Your task to perform on an android device: visit the assistant section in the google photos Image 0: 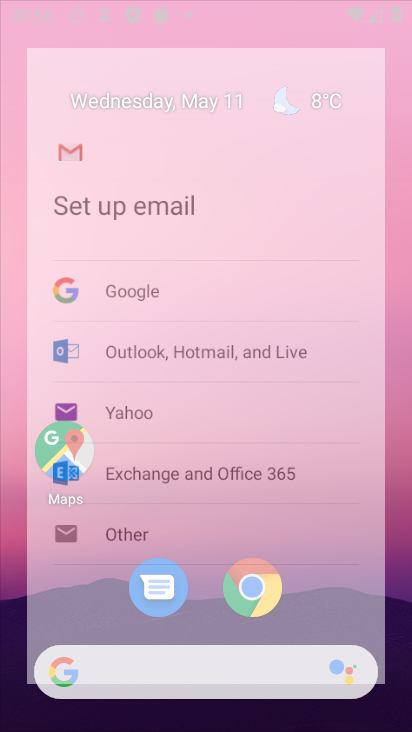
Step 0: drag from (354, 671) to (157, 116)
Your task to perform on an android device: visit the assistant section in the google photos Image 1: 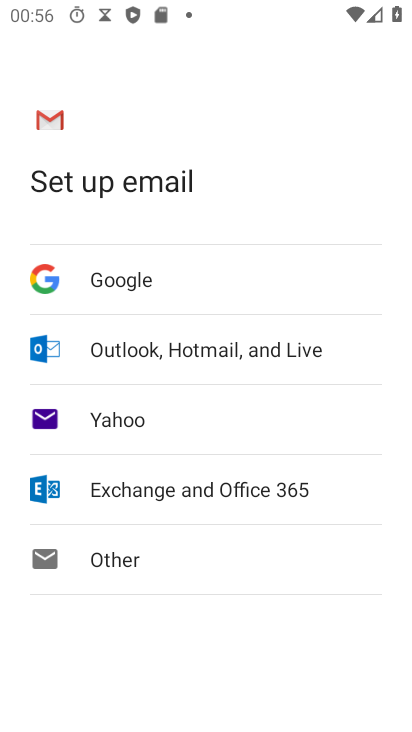
Step 1: press back button
Your task to perform on an android device: visit the assistant section in the google photos Image 2: 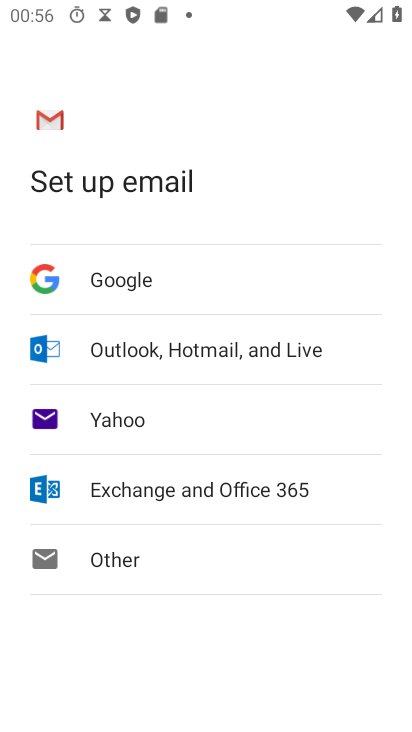
Step 2: press back button
Your task to perform on an android device: visit the assistant section in the google photos Image 3: 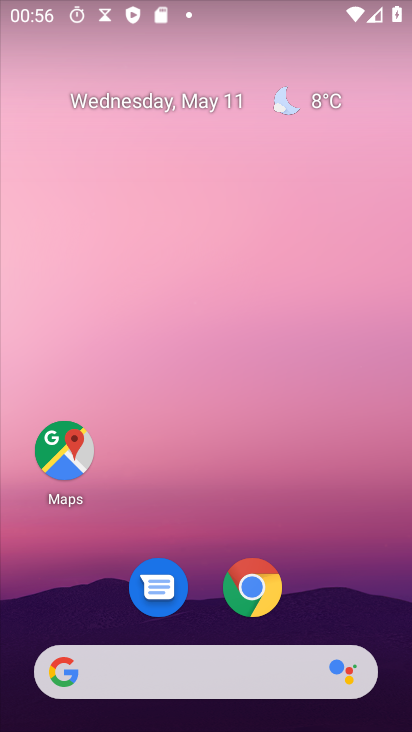
Step 3: drag from (375, 624) to (139, 19)
Your task to perform on an android device: visit the assistant section in the google photos Image 4: 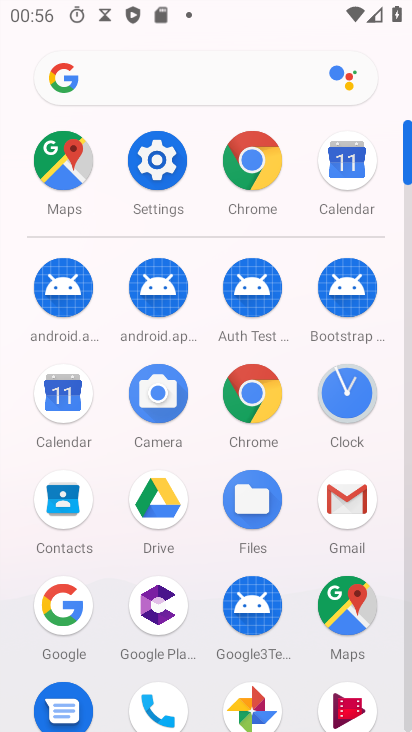
Step 4: drag from (331, 603) to (122, 31)
Your task to perform on an android device: visit the assistant section in the google photos Image 5: 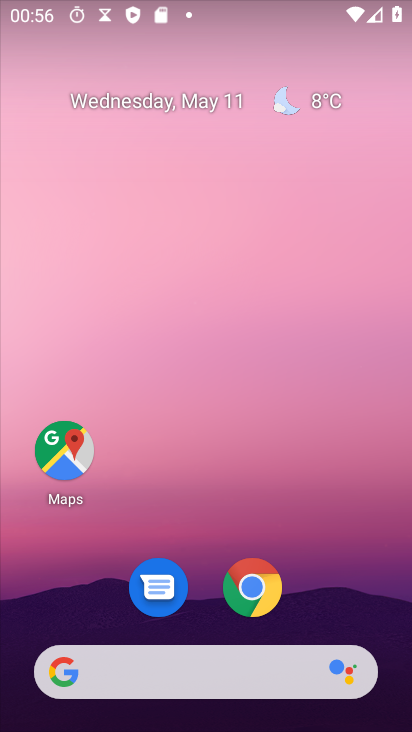
Step 5: drag from (399, 639) to (132, 2)
Your task to perform on an android device: visit the assistant section in the google photos Image 6: 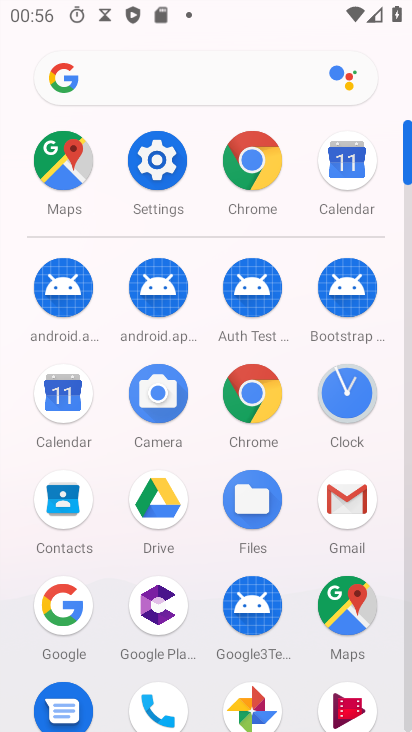
Step 6: click (261, 703)
Your task to perform on an android device: visit the assistant section in the google photos Image 7: 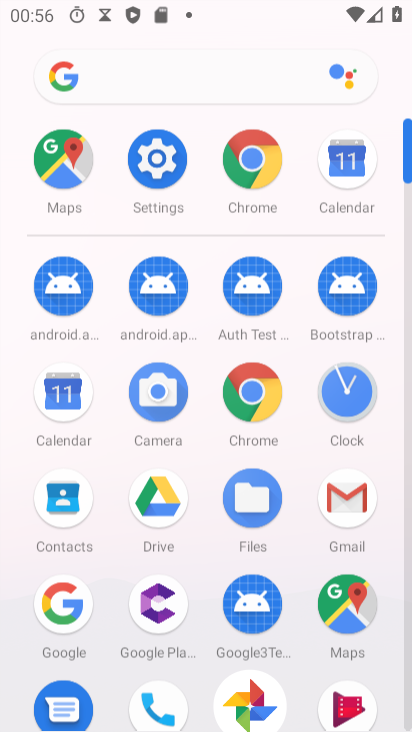
Step 7: click (259, 704)
Your task to perform on an android device: visit the assistant section in the google photos Image 8: 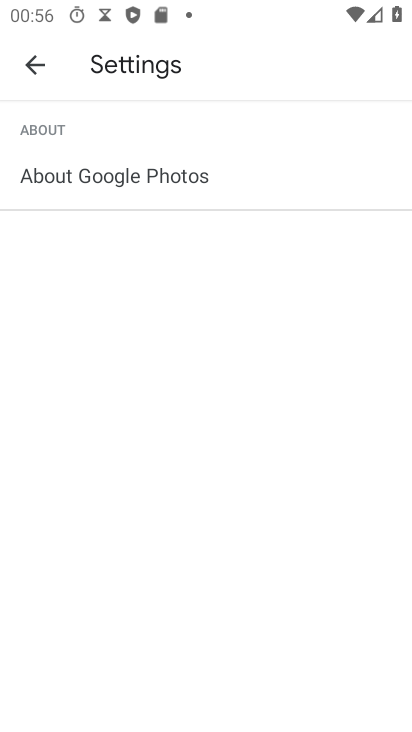
Step 8: click (35, 71)
Your task to perform on an android device: visit the assistant section in the google photos Image 9: 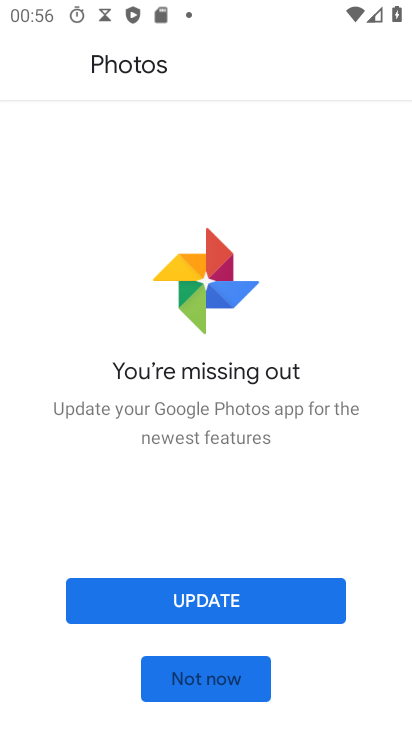
Step 9: click (253, 679)
Your task to perform on an android device: visit the assistant section in the google photos Image 10: 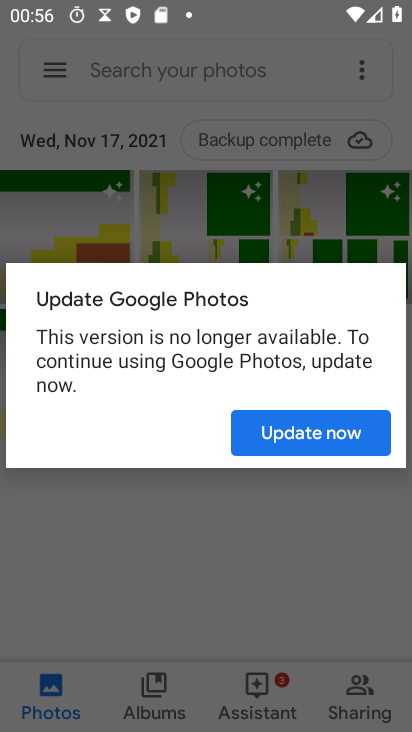
Step 10: click (225, 672)
Your task to perform on an android device: visit the assistant section in the google photos Image 11: 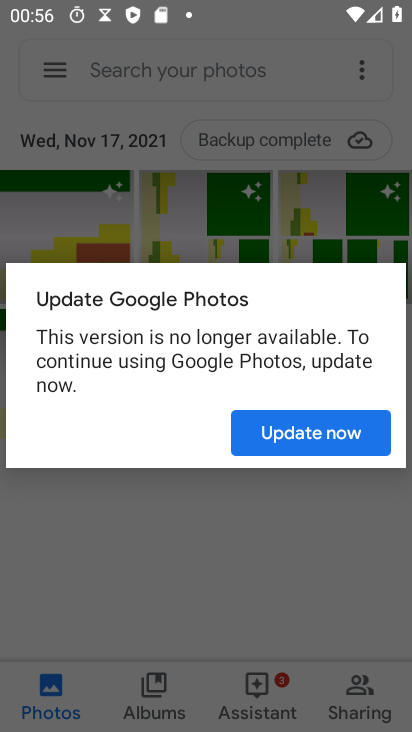
Step 11: click (325, 424)
Your task to perform on an android device: visit the assistant section in the google photos Image 12: 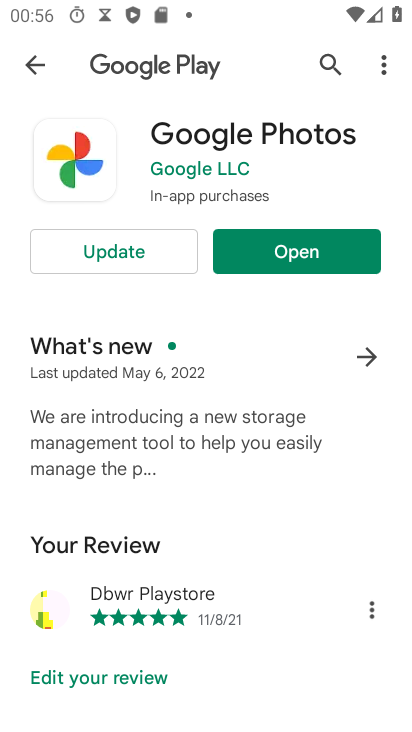
Step 12: click (123, 252)
Your task to perform on an android device: visit the assistant section in the google photos Image 13: 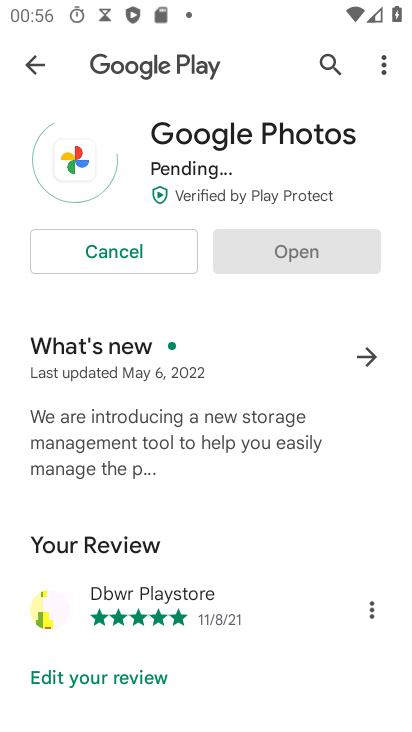
Step 13: click (123, 252)
Your task to perform on an android device: visit the assistant section in the google photos Image 14: 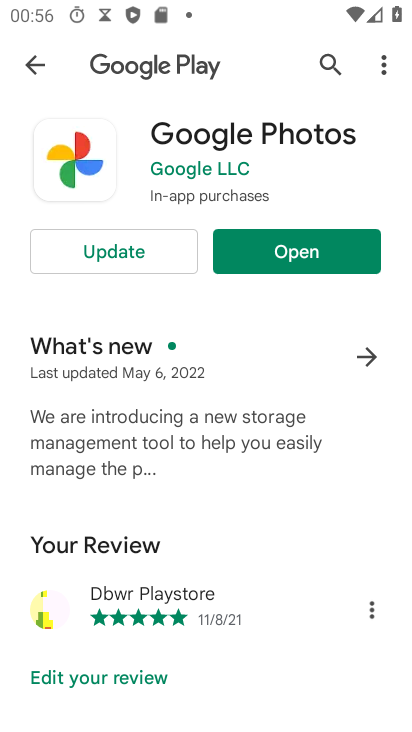
Step 14: click (295, 245)
Your task to perform on an android device: visit the assistant section in the google photos Image 15: 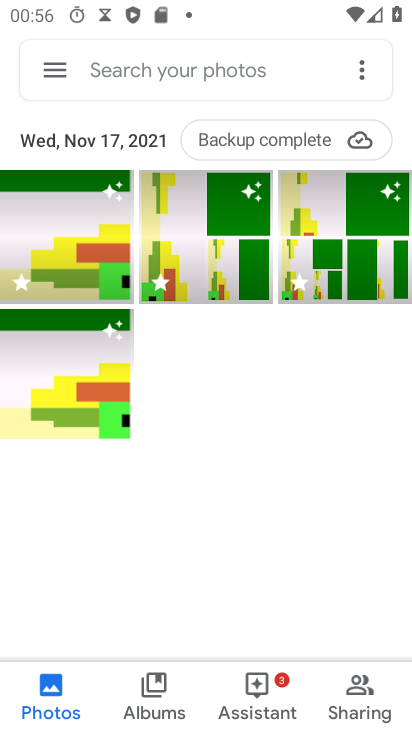
Step 15: click (255, 697)
Your task to perform on an android device: visit the assistant section in the google photos Image 16: 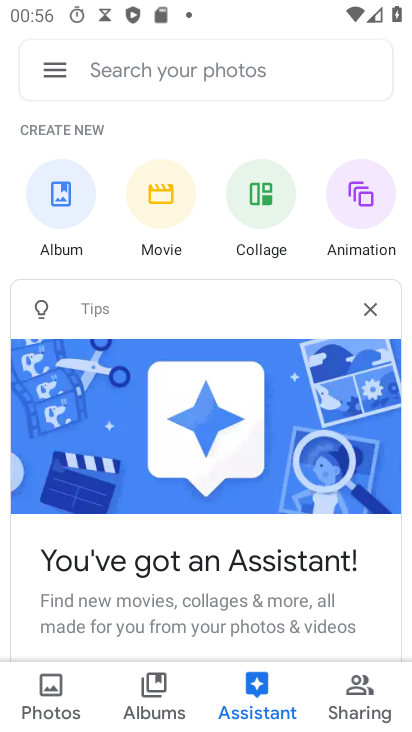
Step 16: task complete